Your task to perform on an android device: Open Chrome and go to settings Image 0: 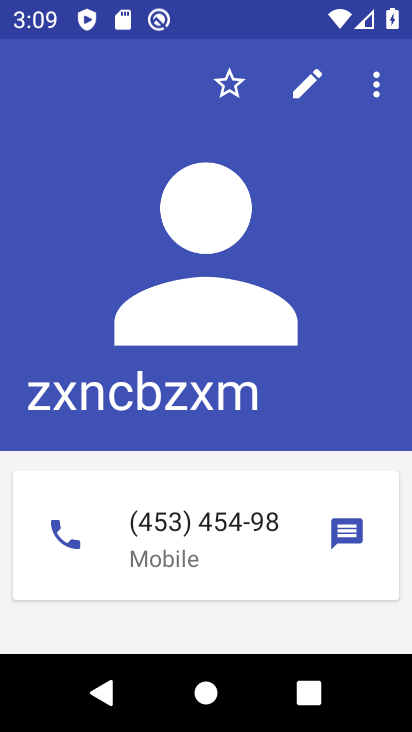
Step 0: press home button
Your task to perform on an android device: Open Chrome and go to settings Image 1: 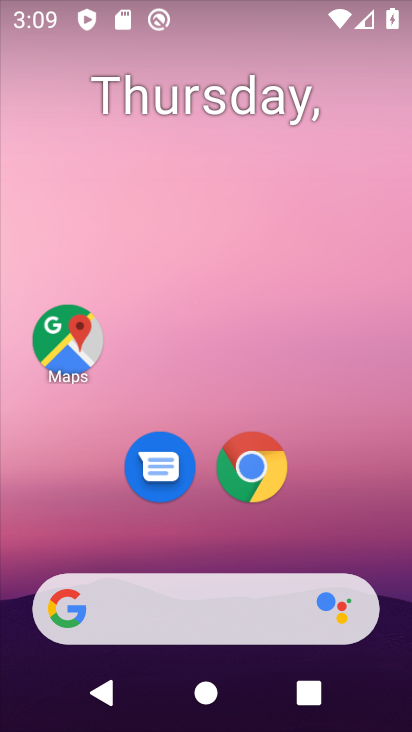
Step 1: click (242, 482)
Your task to perform on an android device: Open Chrome and go to settings Image 2: 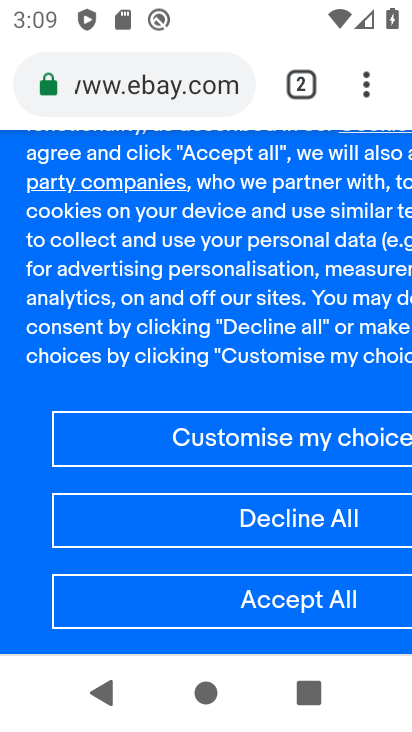
Step 2: click (367, 101)
Your task to perform on an android device: Open Chrome and go to settings Image 3: 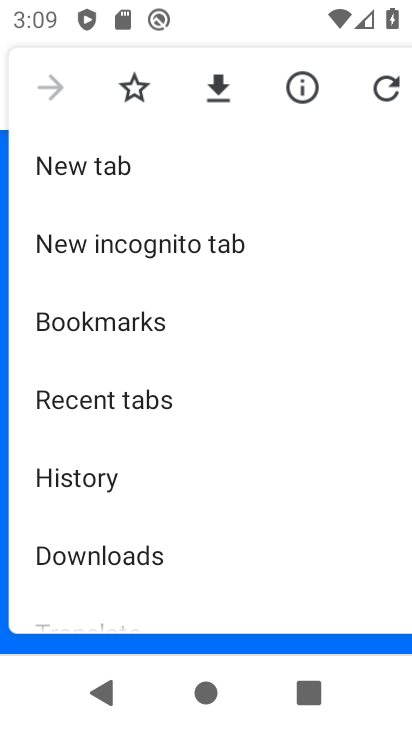
Step 3: drag from (126, 543) to (172, 160)
Your task to perform on an android device: Open Chrome and go to settings Image 4: 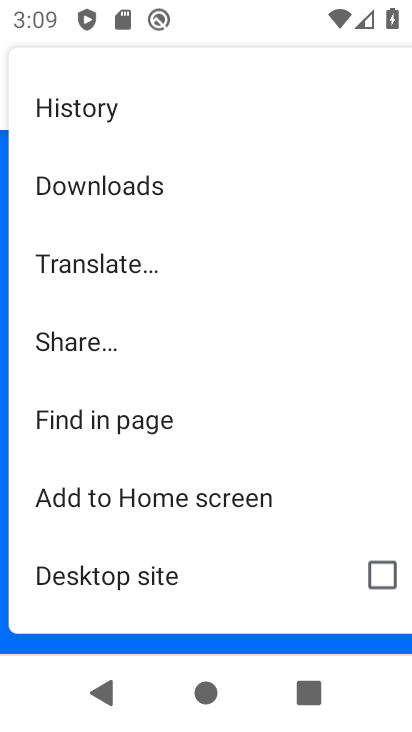
Step 4: drag from (156, 565) to (196, 133)
Your task to perform on an android device: Open Chrome and go to settings Image 5: 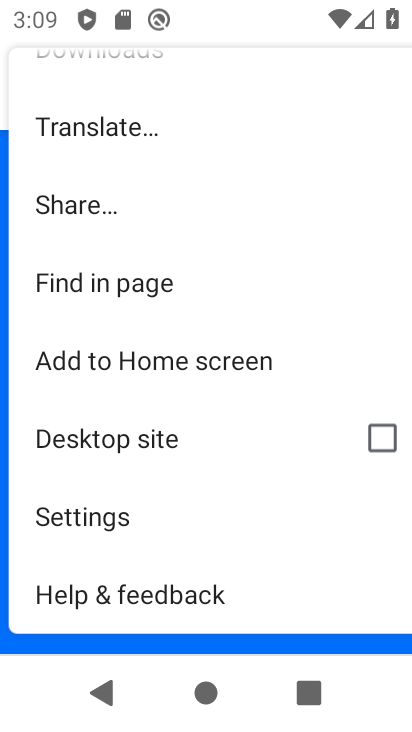
Step 5: click (121, 513)
Your task to perform on an android device: Open Chrome and go to settings Image 6: 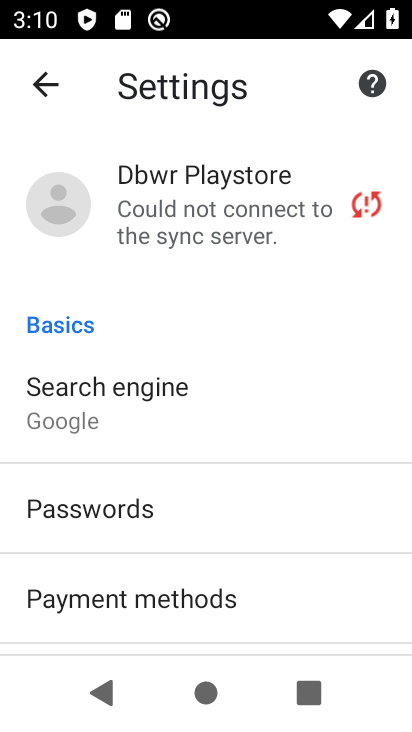
Step 6: task complete